Your task to perform on an android device: Open my contact list Image 0: 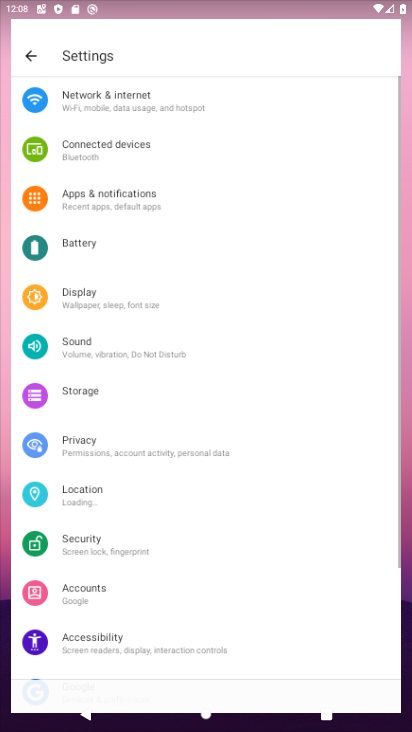
Step 0: press home button
Your task to perform on an android device: Open my contact list Image 1: 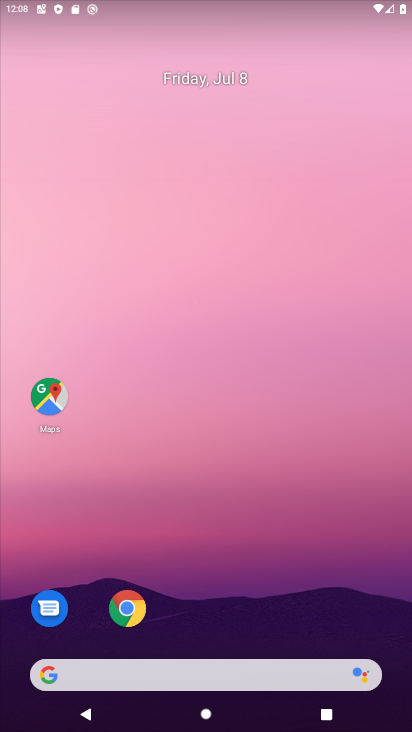
Step 1: drag from (293, 506) to (212, 39)
Your task to perform on an android device: Open my contact list Image 2: 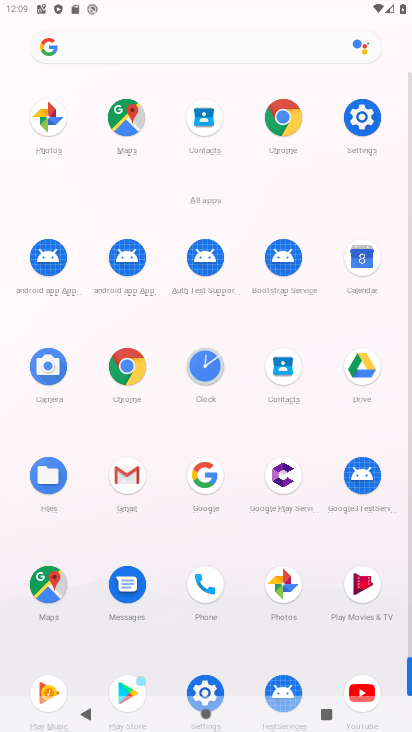
Step 2: click (279, 356)
Your task to perform on an android device: Open my contact list Image 3: 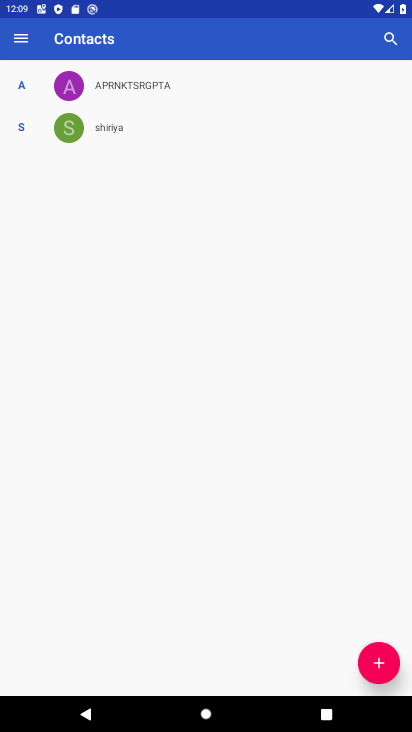
Step 3: task complete